Your task to perform on an android device: Go to accessibility settings Image 0: 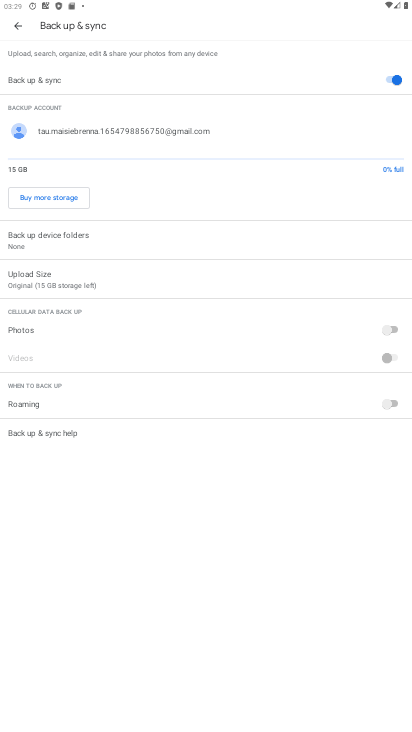
Step 0: press home button
Your task to perform on an android device: Go to accessibility settings Image 1: 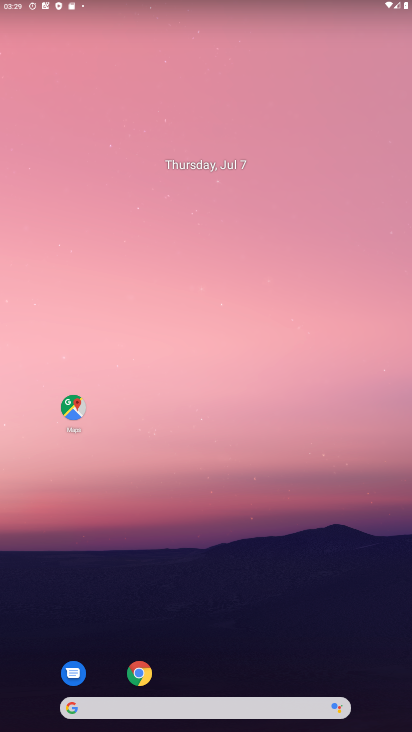
Step 1: drag from (207, 667) to (201, 119)
Your task to perform on an android device: Go to accessibility settings Image 2: 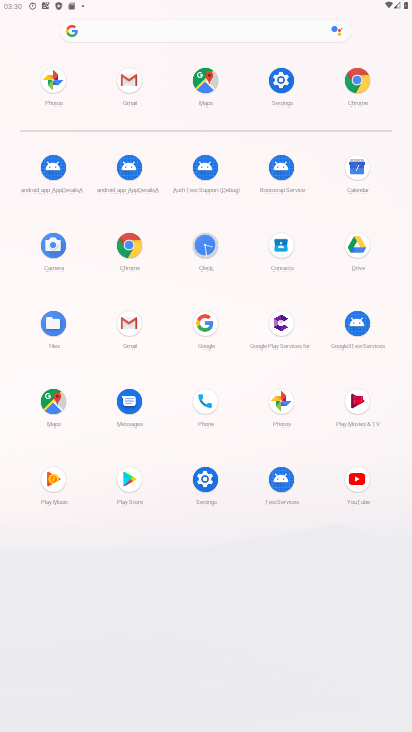
Step 2: click (273, 82)
Your task to perform on an android device: Go to accessibility settings Image 3: 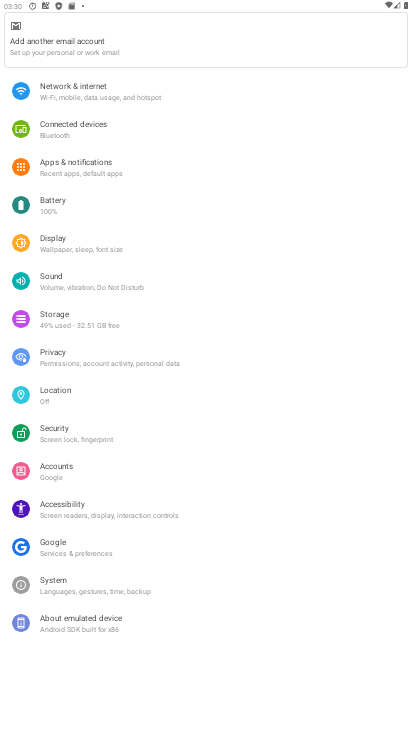
Step 3: click (106, 505)
Your task to perform on an android device: Go to accessibility settings Image 4: 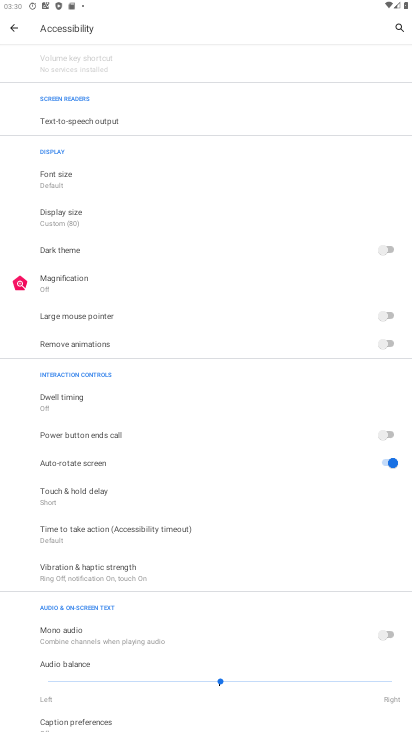
Step 4: task complete